Your task to perform on an android device: Open the Play Movies app and select the watchlist tab. Image 0: 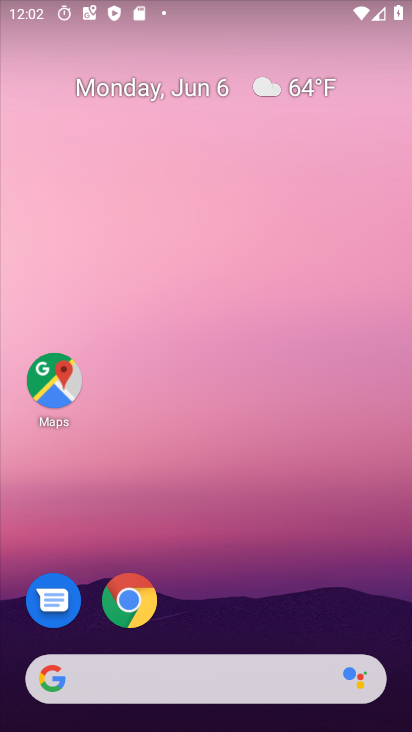
Step 0: drag from (230, 670) to (203, 126)
Your task to perform on an android device: Open the Play Movies app and select the watchlist tab. Image 1: 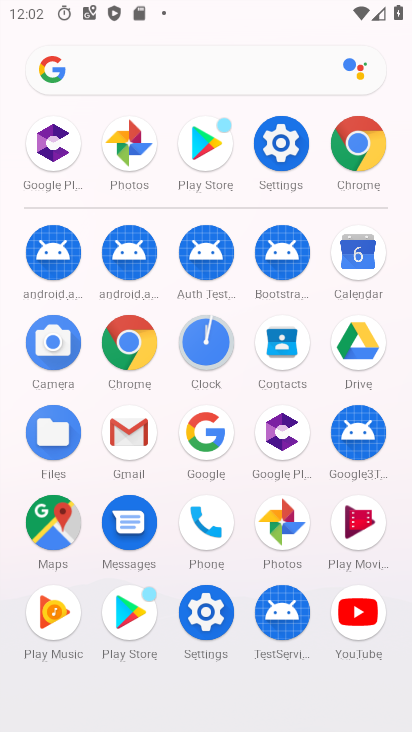
Step 1: click (350, 506)
Your task to perform on an android device: Open the Play Movies app and select the watchlist tab. Image 2: 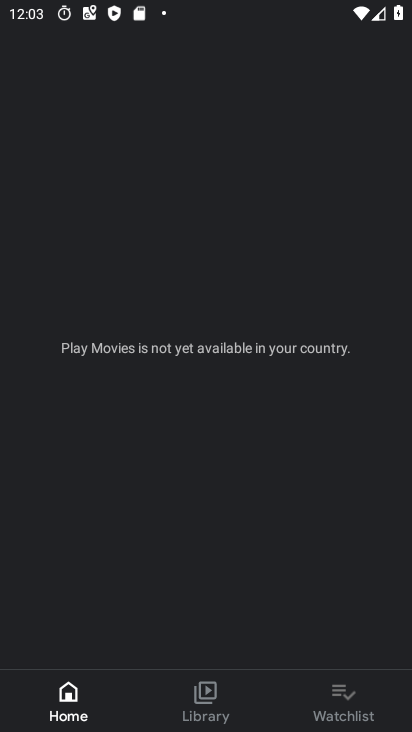
Step 2: click (338, 706)
Your task to perform on an android device: Open the Play Movies app and select the watchlist tab. Image 3: 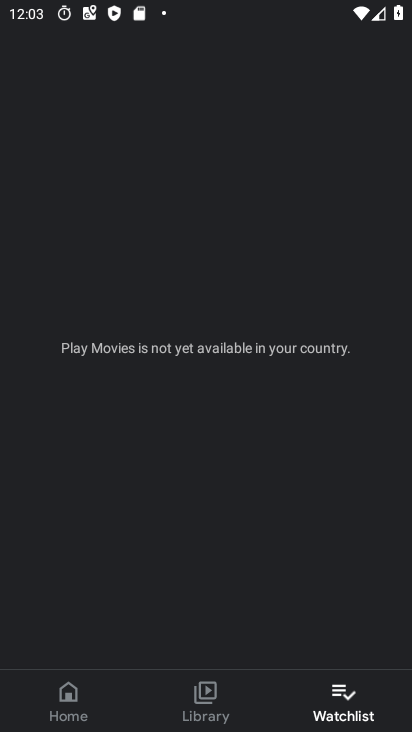
Step 3: click (352, 716)
Your task to perform on an android device: Open the Play Movies app and select the watchlist tab. Image 4: 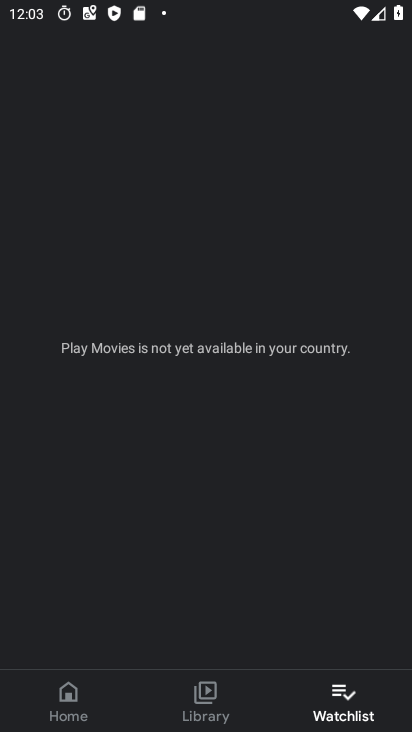
Step 4: click (340, 702)
Your task to perform on an android device: Open the Play Movies app and select the watchlist tab. Image 5: 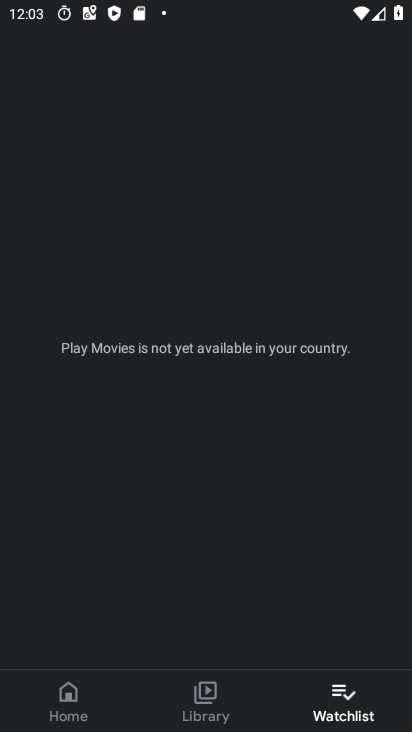
Step 5: task complete